Your task to perform on an android device: Open eBay Image 0: 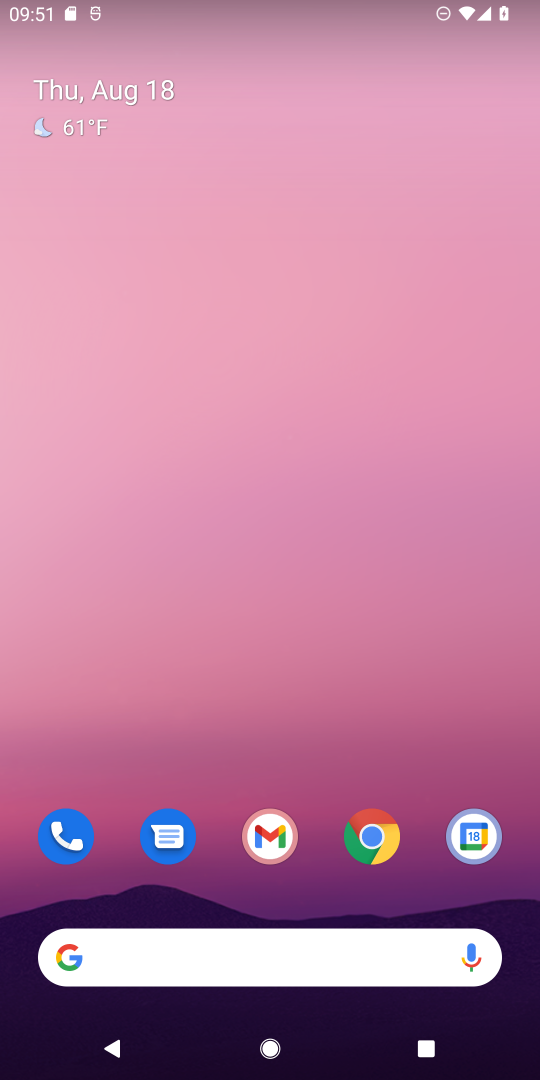
Step 0: click (344, 252)
Your task to perform on an android device: Open eBay Image 1: 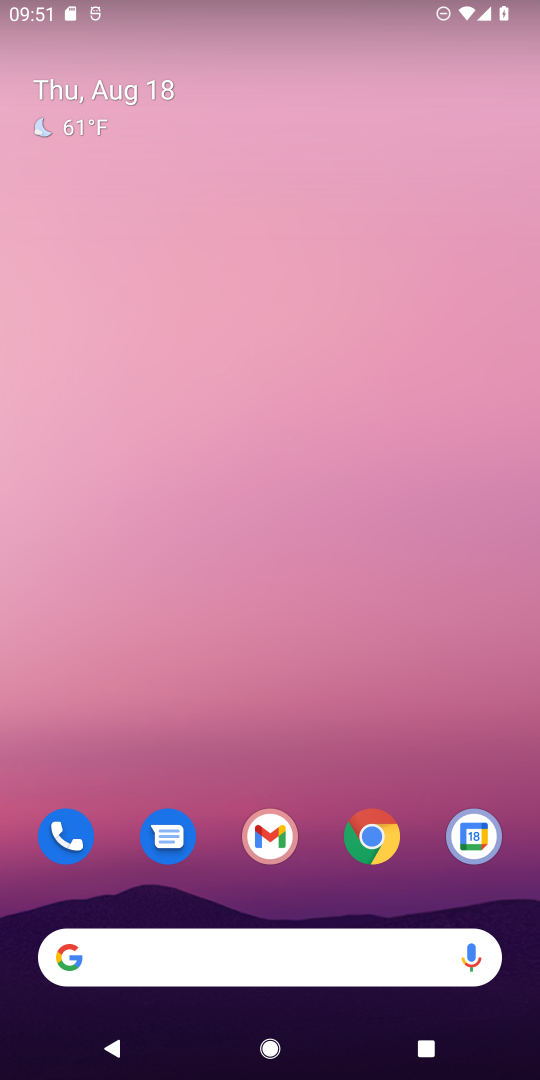
Step 1: drag from (395, 739) to (304, 268)
Your task to perform on an android device: Open eBay Image 2: 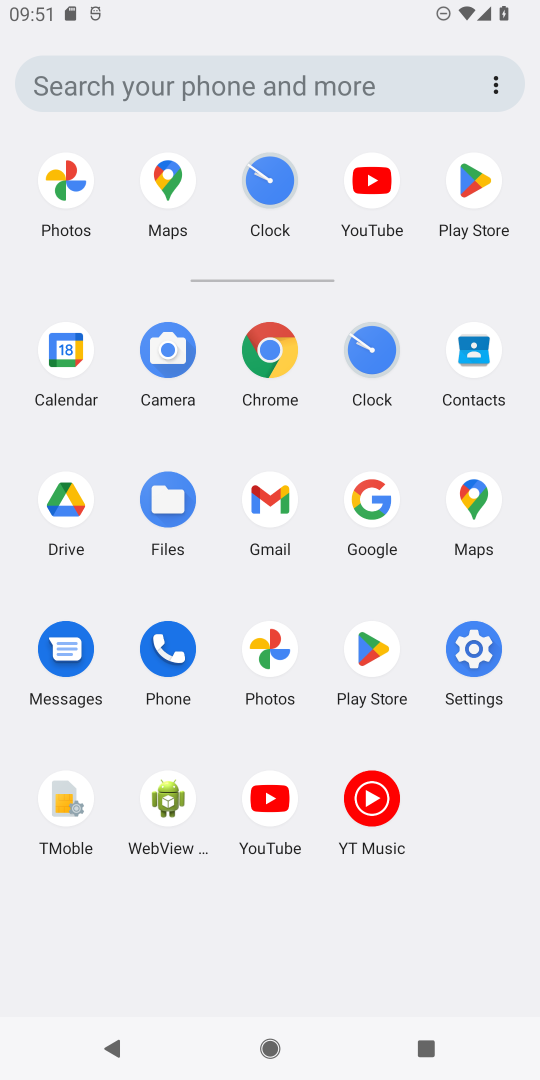
Step 2: click (276, 346)
Your task to perform on an android device: Open eBay Image 3: 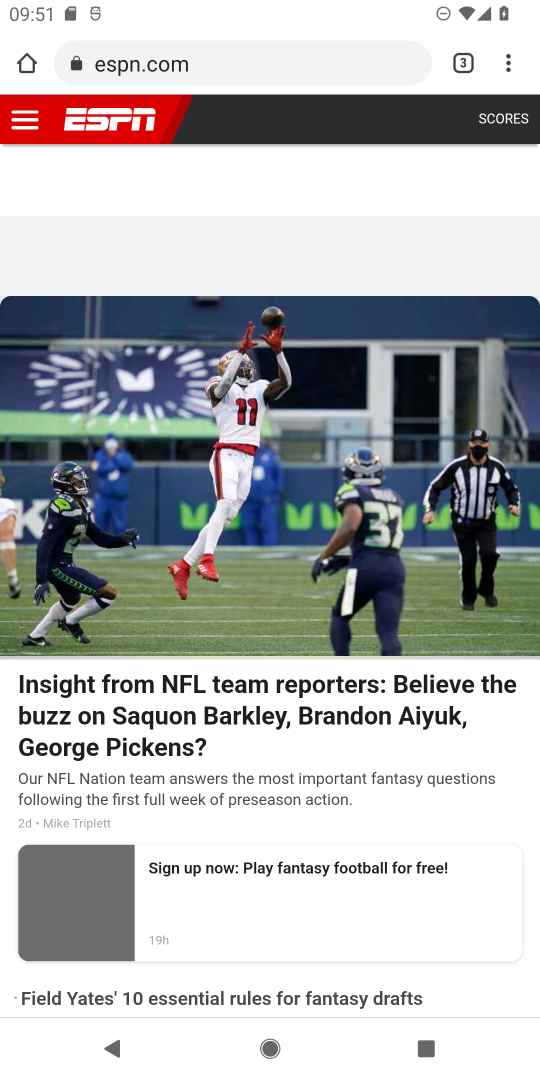
Step 3: click (271, 60)
Your task to perform on an android device: Open eBay Image 4: 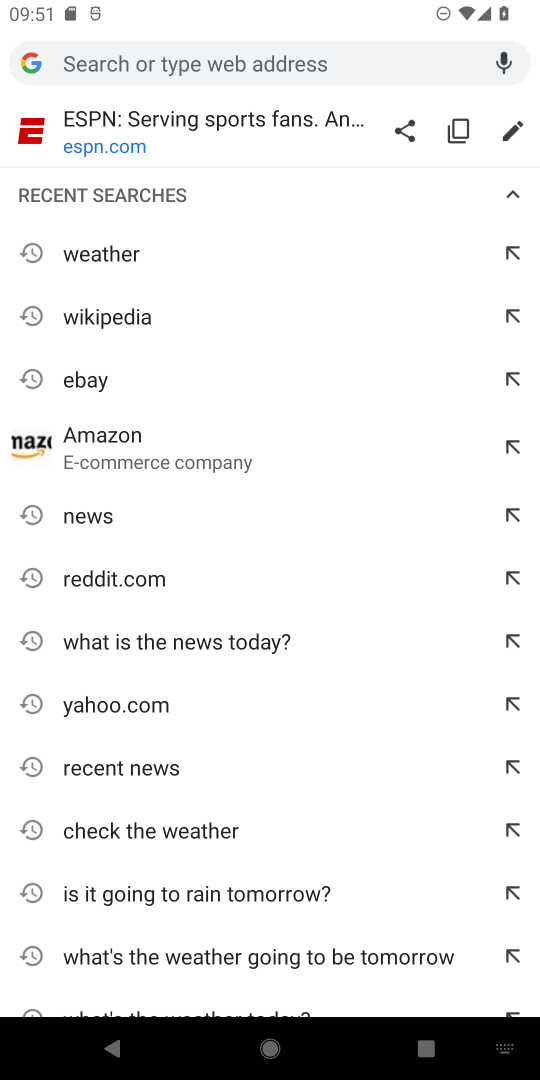
Step 4: click (75, 377)
Your task to perform on an android device: Open eBay Image 5: 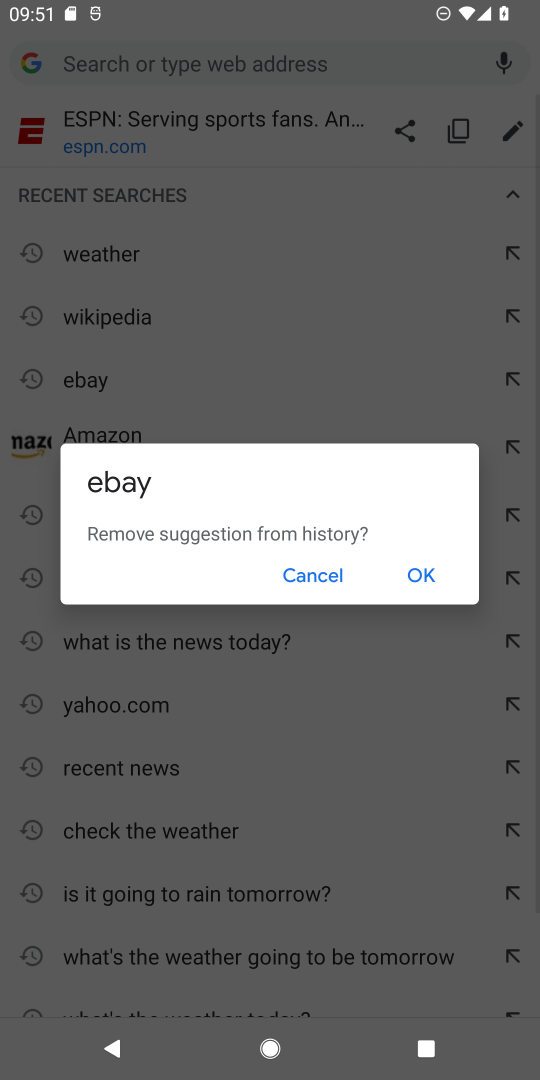
Step 5: click (303, 584)
Your task to perform on an android device: Open eBay Image 6: 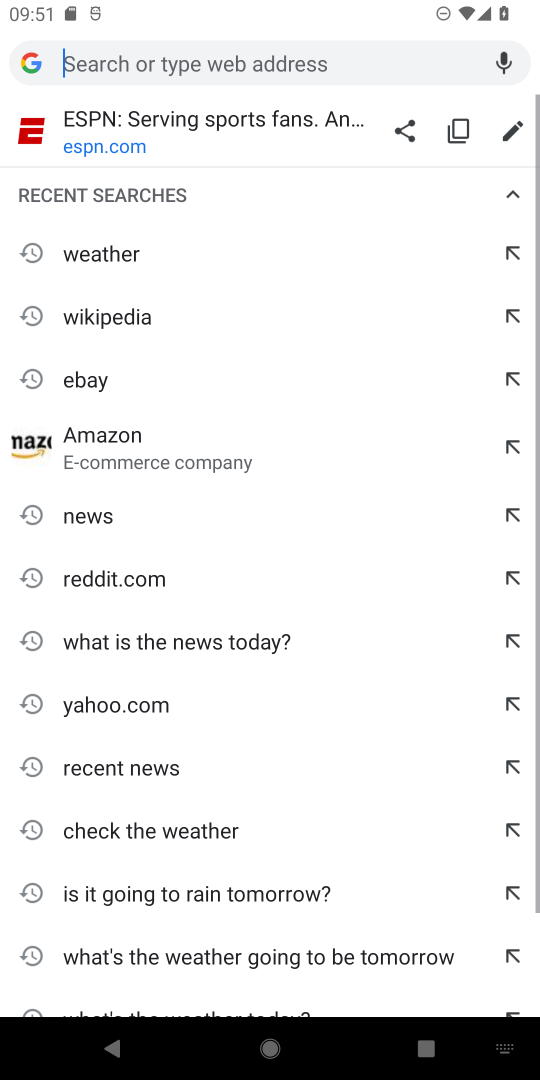
Step 6: click (98, 391)
Your task to perform on an android device: Open eBay Image 7: 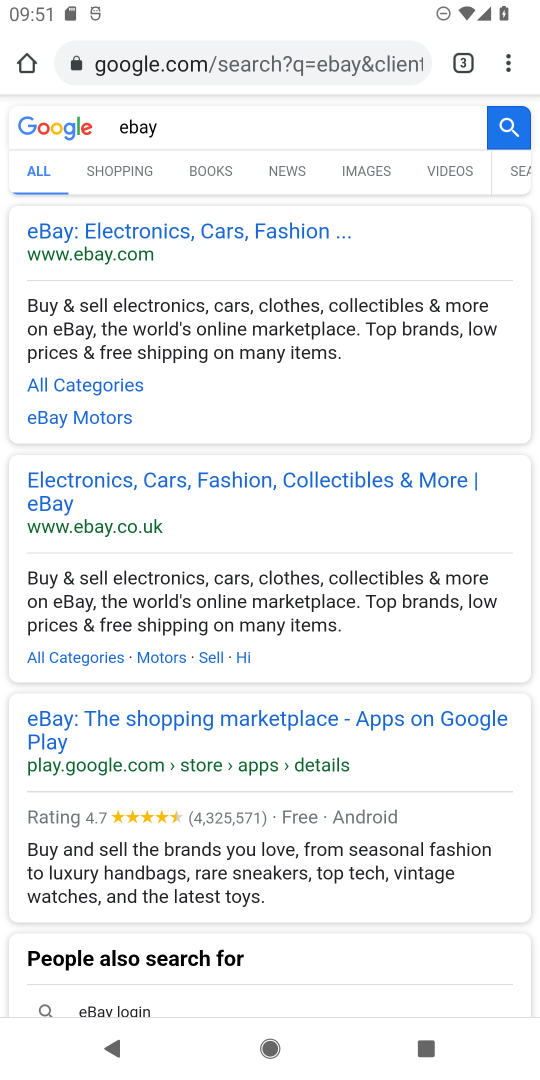
Step 7: click (111, 239)
Your task to perform on an android device: Open eBay Image 8: 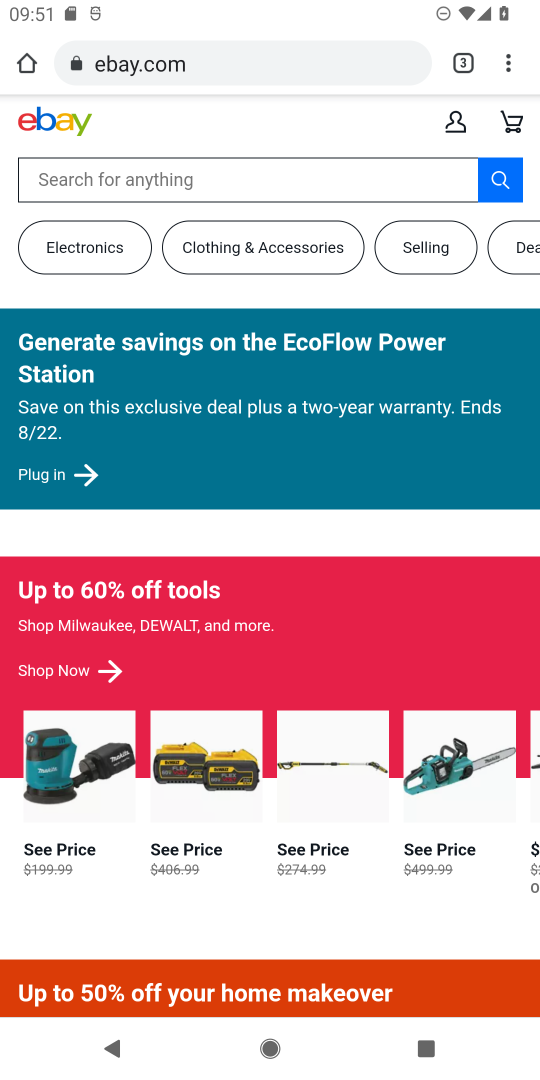
Step 8: task complete